Your task to perform on an android device: turn off priority inbox in the gmail app Image 0: 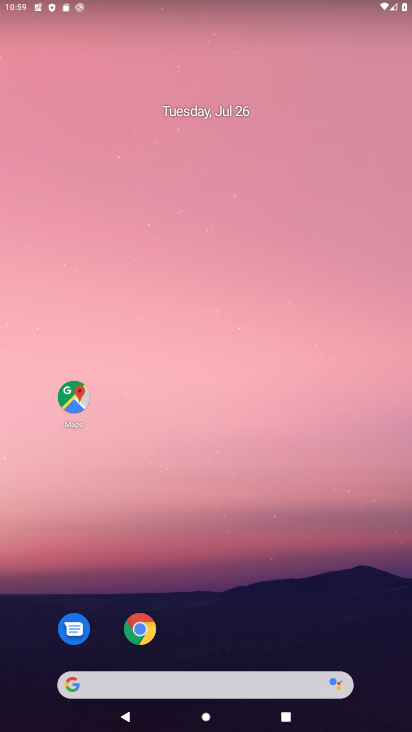
Step 0: drag from (254, 609) to (214, 27)
Your task to perform on an android device: turn off priority inbox in the gmail app Image 1: 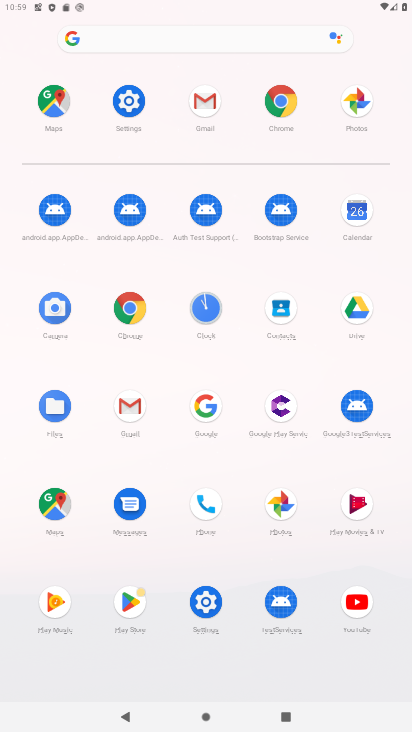
Step 1: click (199, 94)
Your task to perform on an android device: turn off priority inbox in the gmail app Image 2: 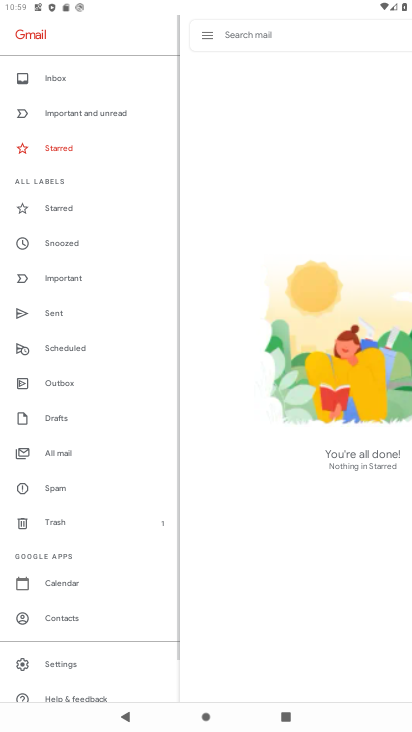
Step 2: click (61, 82)
Your task to perform on an android device: turn off priority inbox in the gmail app Image 3: 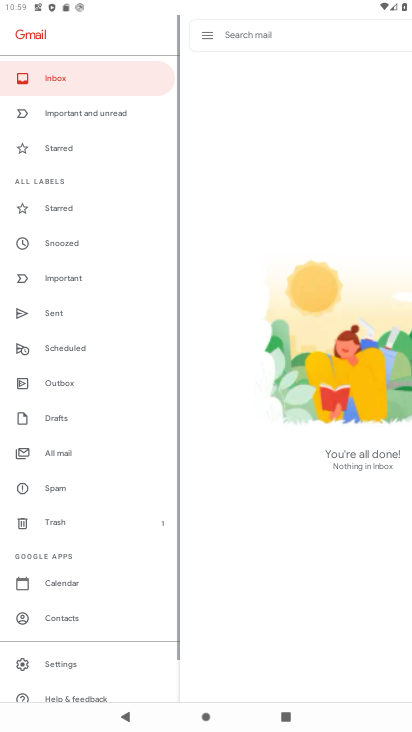
Step 3: task complete